Your task to perform on an android device: Go to ESPN.com Image 0: 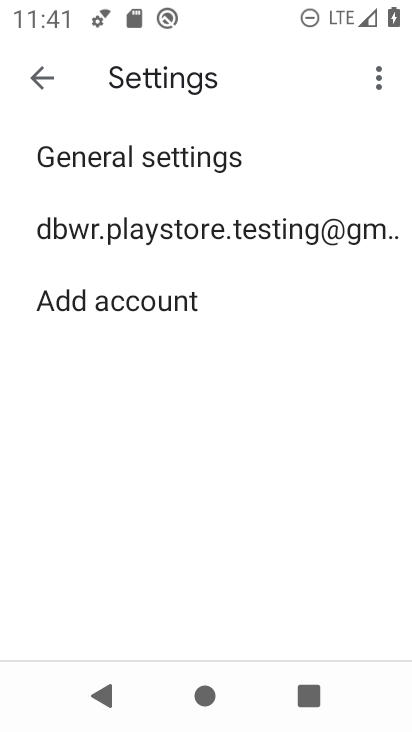
Step 0: press home button
Your task to perform on an android device: Go to ESPN.com Image 1: 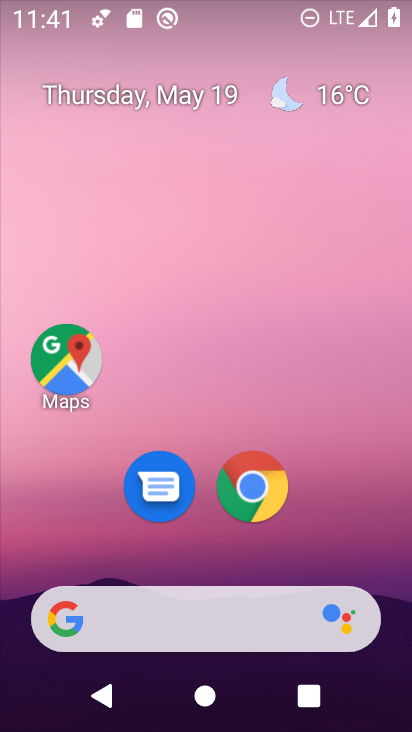
Step 1: click (247, 476)
Your task to perform on an android device: Go to ESPN.com Image 2: 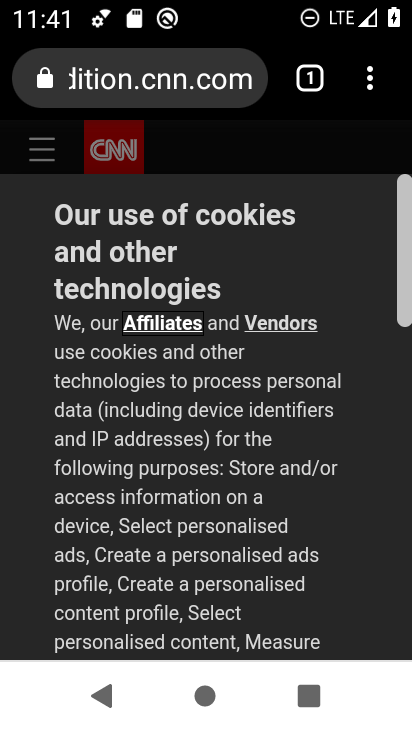
Step 2: click (203, 89)
Your task to perform on an android device: Go to ESPN.com Image 3: 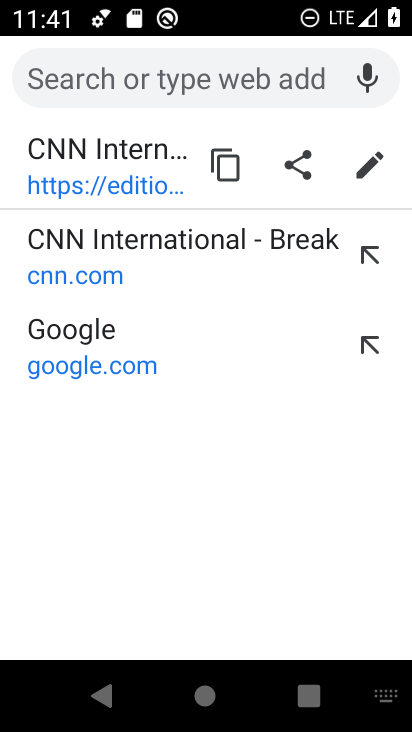
Step 3: type "espn.com"
Your task to perform on an android device: Go to ESPN.com Image 4: 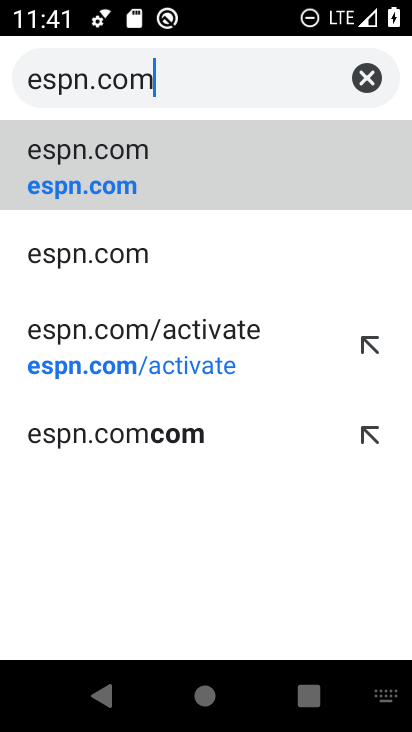
Step 4: click (48, 171)
Your task to perform on an android device: Go to ESPN.com Image 5: 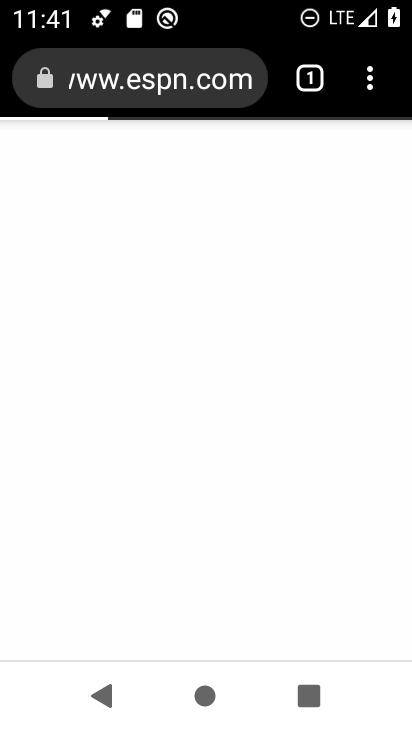
Step 5: task complete